Your task to perform on an android device: turn off location Image 0: 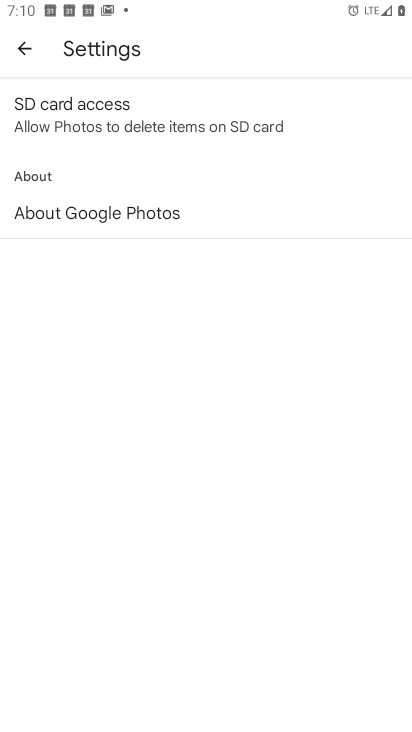
Step 0: press home button
Your task to perform on an android device: turn off location Image 1: 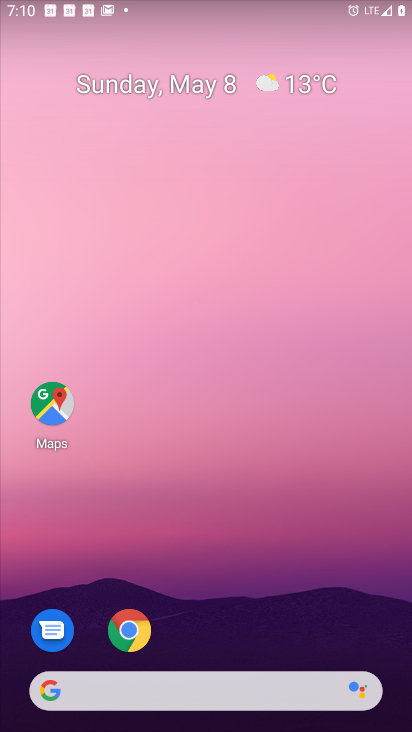
Step 1: drag from (219, 612) to (102, 74)
Your task to perform on an android device: turn off location Image 2: 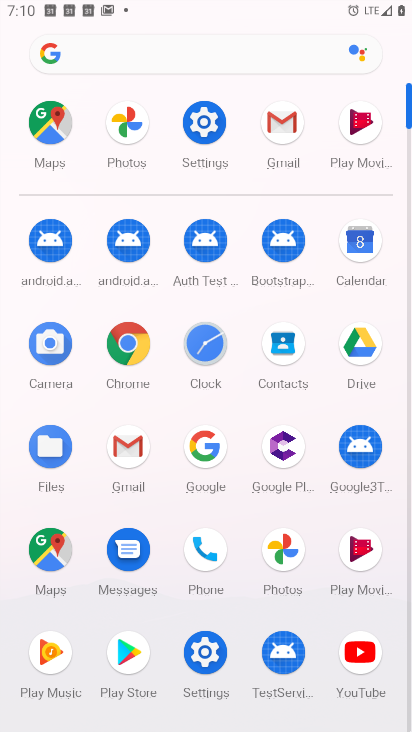
Step 2: click (202, 126)
Your task to perform on an android device: turn off location Image 3: 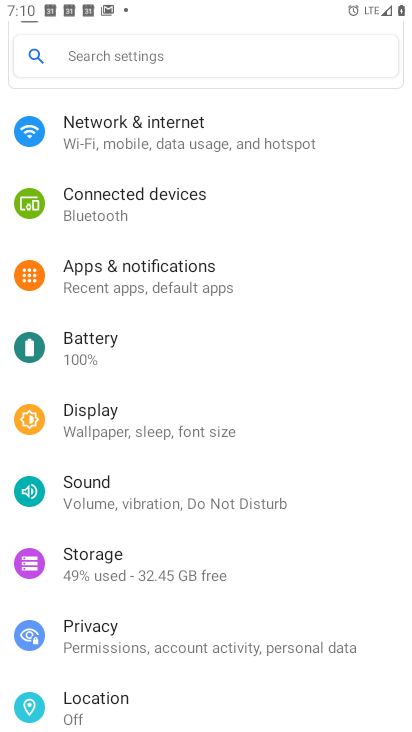
Step 3: drag from (252, 554) to (224, 230)
Your task to perform on an android device: turn off location Image 4: 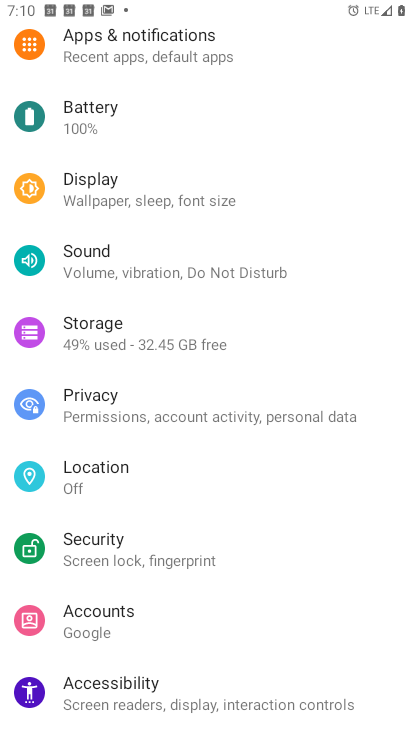
Step 4: click (89, 475)
Your task to perform on an android device: turn off location Image 5: 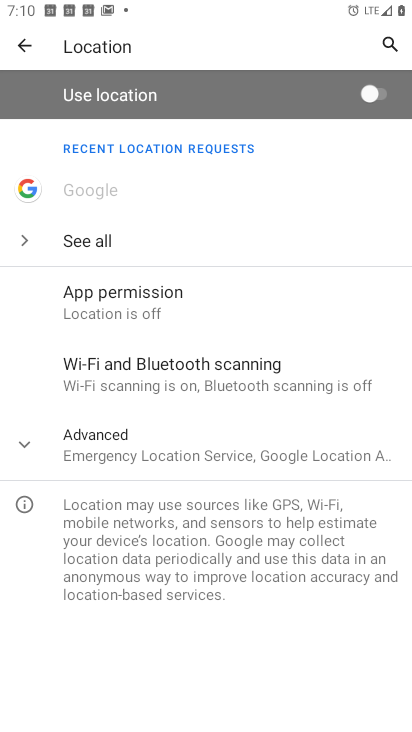
Step 5: task complete